Your task to perform on an android device: find snoozed emails in the gmail app Image 0: 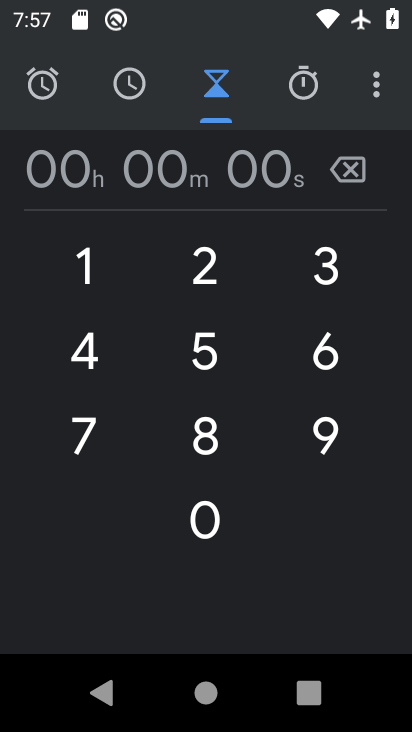
Step 0: press home button
Your task to perform on an android device: find snoozed emails in the gmail app Image 1: 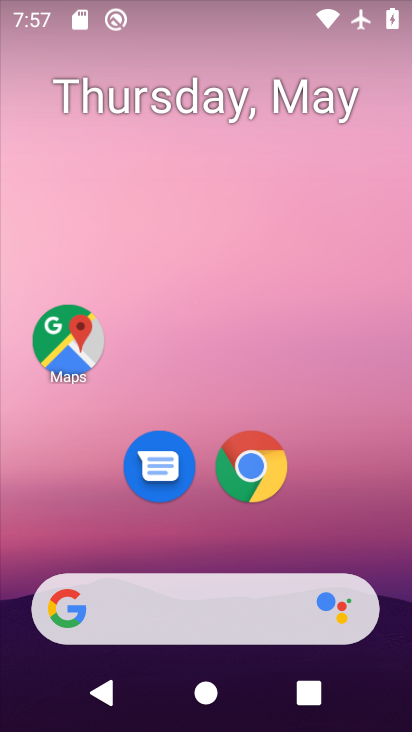
Step 1: drag from (357, 524) to (328, 29)
Your task to perform on an android device: find snoozed emails in the gmail app Image 2: 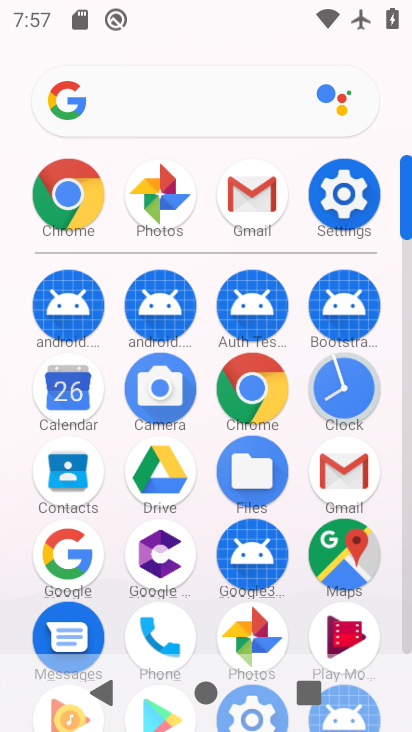
Step 2: click (340, 187)
Your task to perform on an android device: find snoozed emails in the gmail app Image 3: 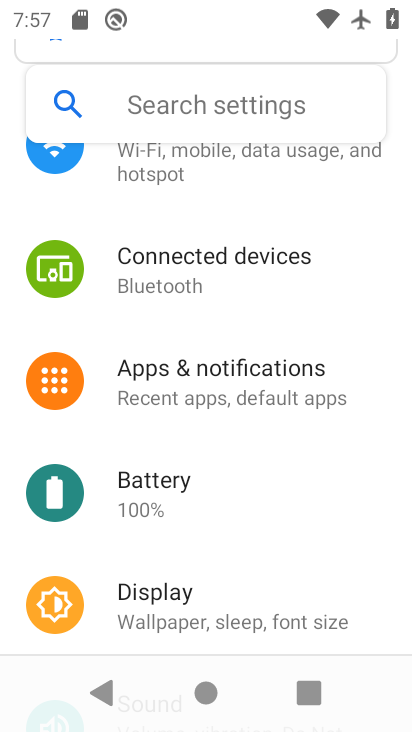
Step 3: press home button
Your task to perform on an android device: find snoozed emails in the gmail app Image 4: 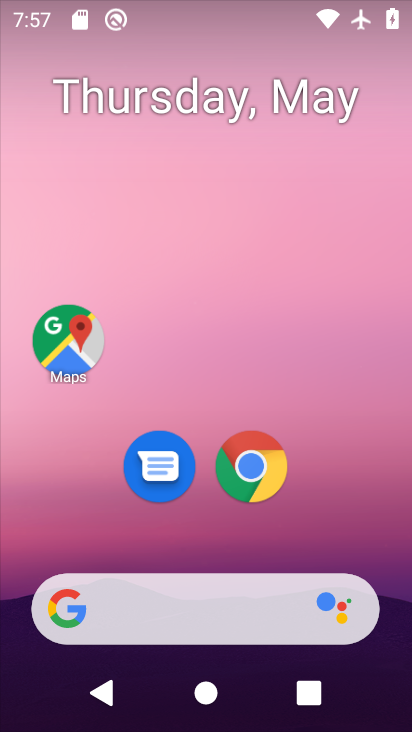
Step 4: drag from (357, 513) to (299, 13)
Your task to perform on an android device: find snoozed emails in the gmail app Image 5: 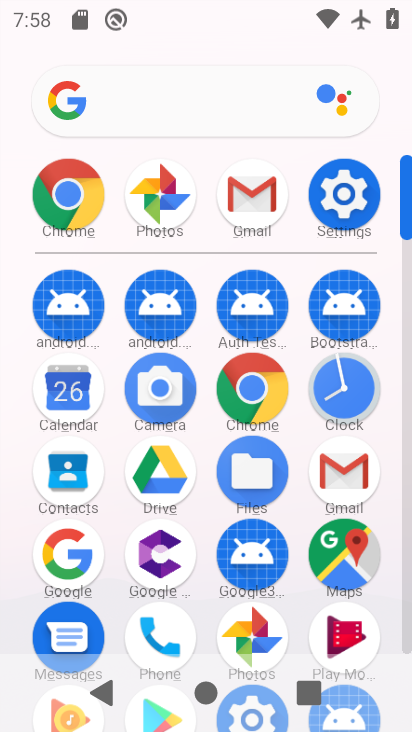
Step 5: click (246, 197)
Your task to perform on an android device: find snoozed emails in the gmail app Image 6: 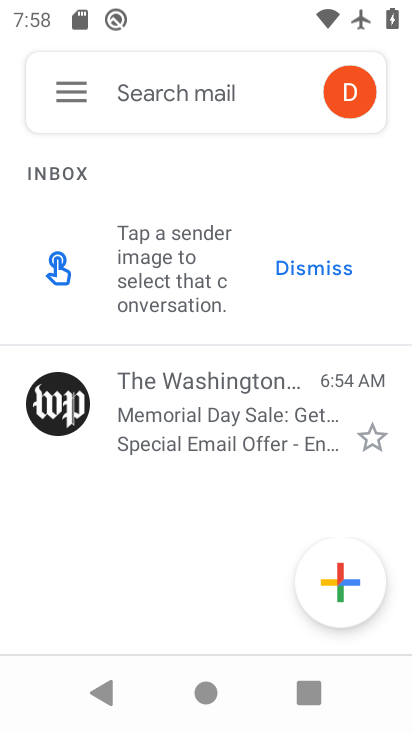
Step 6: click (64, 82)
Your task to perform on an android device: find snoozed emails in the gmail app Image 7: 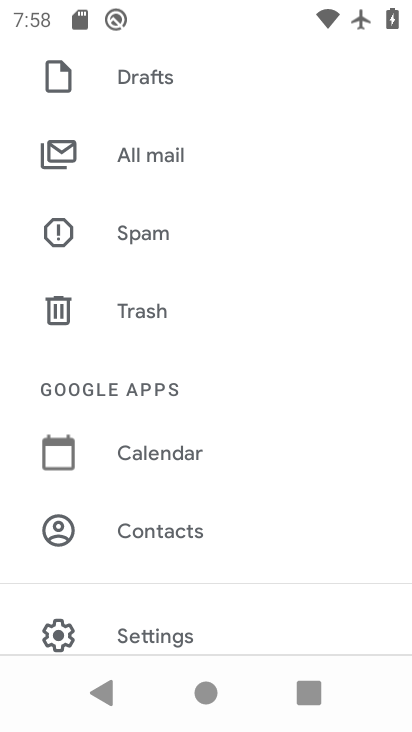
Step 7: drag from (130, 306) to (179, 707)
Your task to perform on an android device: find snoozed emails in the gmail app Image 8: 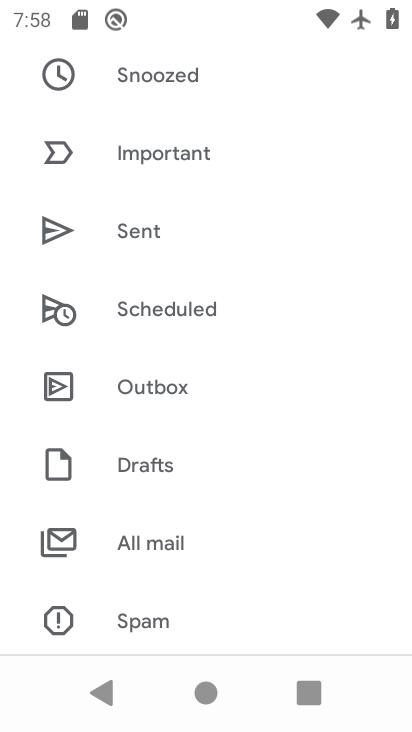
Step 8: click (268, 91)
Your task to perform on an android device: find snoozed emails in the gmail app Image 9: 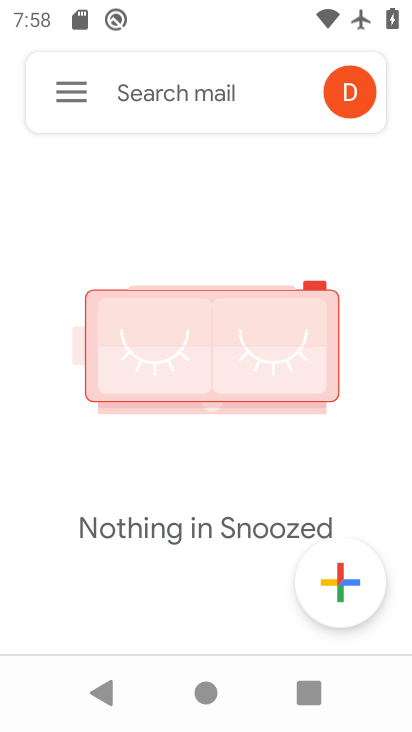
Step 9: task complete